Your task to perform on an android device: open wifi settings Image 0: 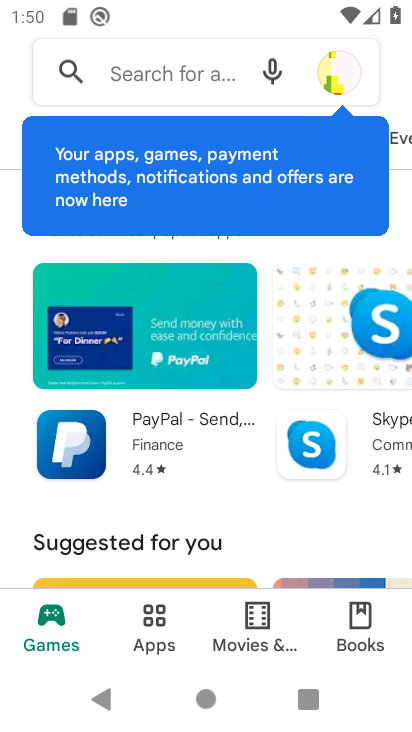
Step 0: press back button
Your task to perform on an android device: open wifi settings Image 1: 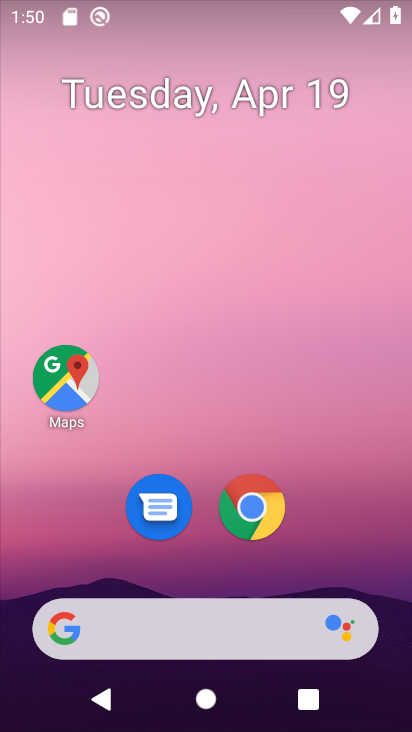
Step 1: drag from (204, 455) to (336, 74)
Your task to perform on an android device: open wifi settings Image 2: 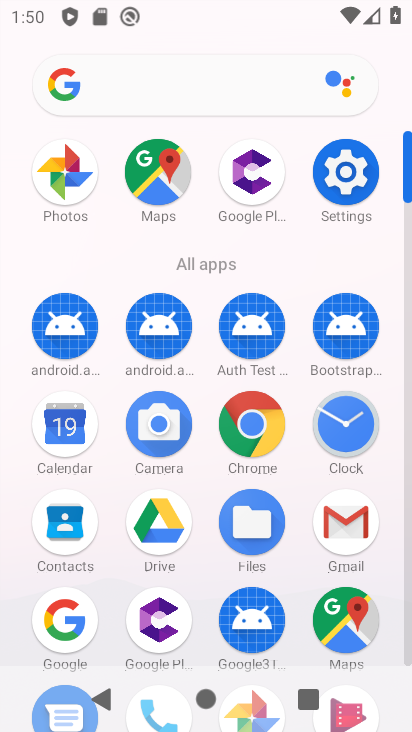
Step 2: click (344, 162)
Your task to perform on an android device: open wifi settings Image 3: 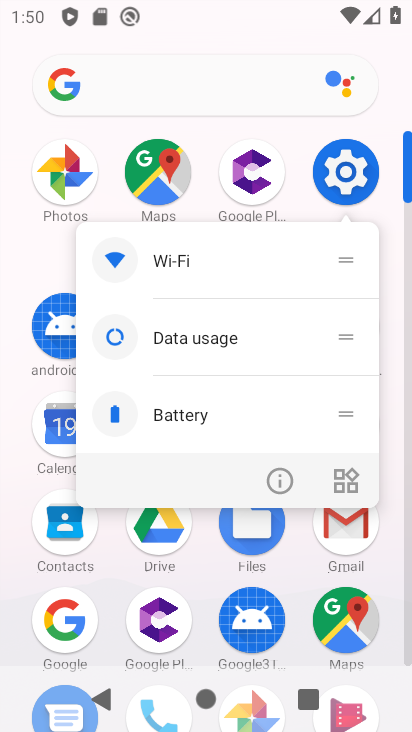
Step 3: click (334, 187)
Your task to perform on an android device: open wifi settings Image 4: 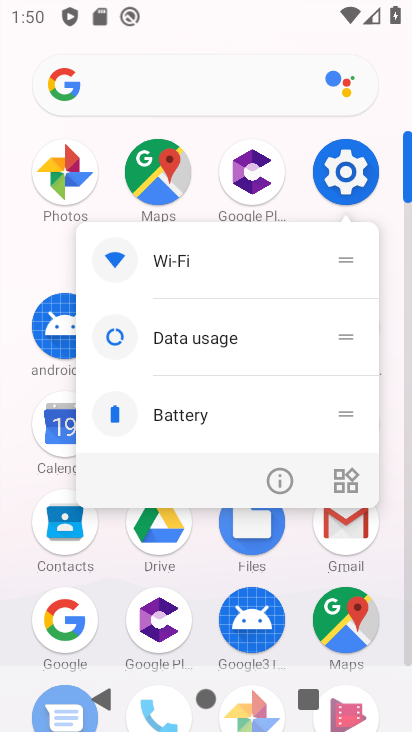
Step 4: click (344, 184)
Your task to perform on an android device: open wifi settings Image 5: 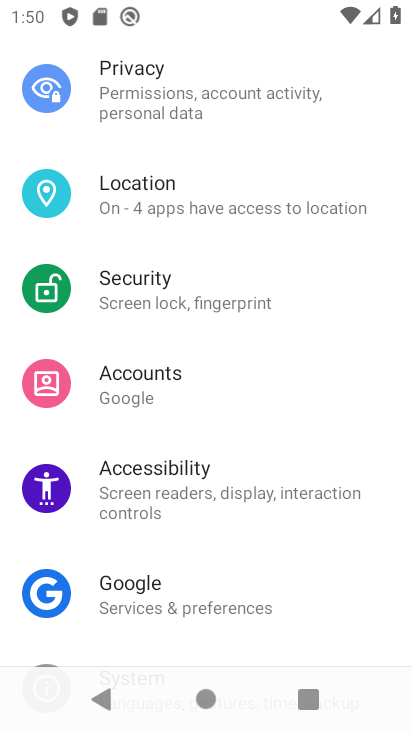
Step 5: drag from (275, 173) to (180, 544)
Your task to perform on an android device: open wifi settings Image 6: 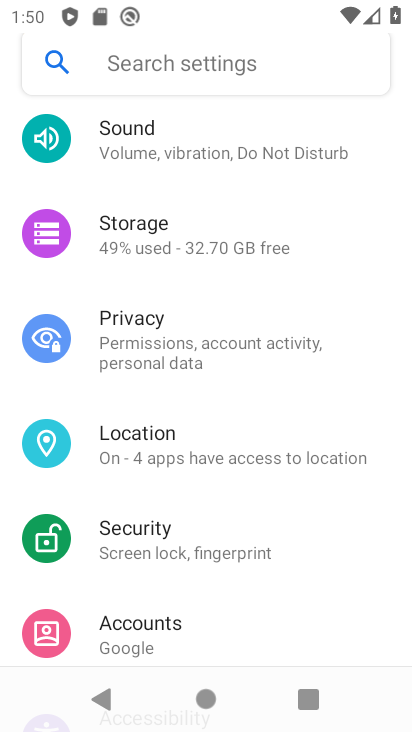
Step 6: drag from (231, 265) to (145, 575)
Your task to perform on an android device: open wifi settings Image 7: 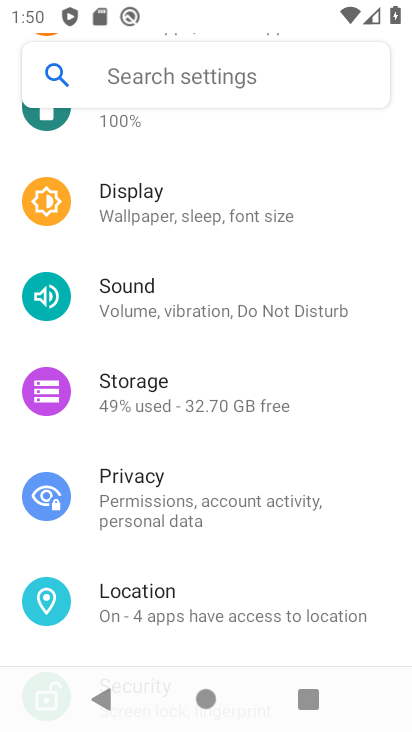
Step 7: drag from (200, 340) to (147, 519)
Your task to perform on an android device: open wifi settings Image 8: 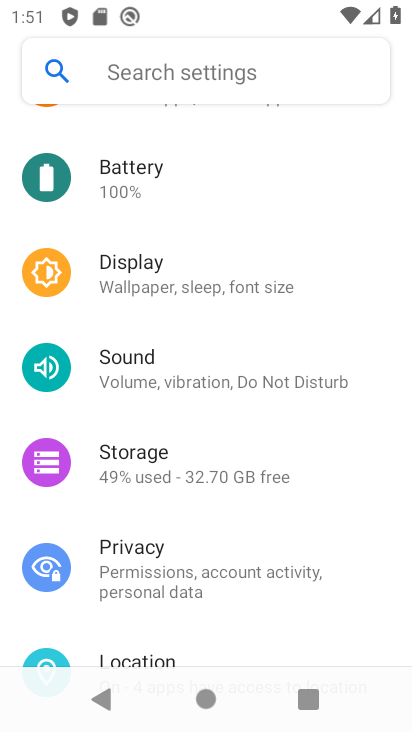
Step 8: drag from (234, 180) to (143, 541)
Your task to perform on an android device: open wifi settings Image 9: 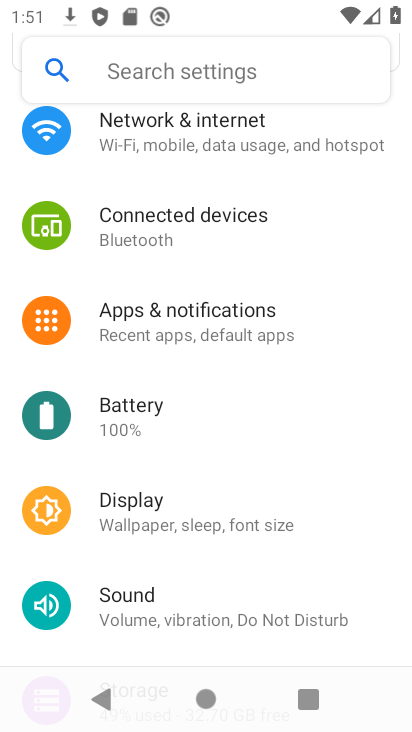
Step 9: click (205, 141)
Your task to perform on an android device: open wifi settings Image 10: 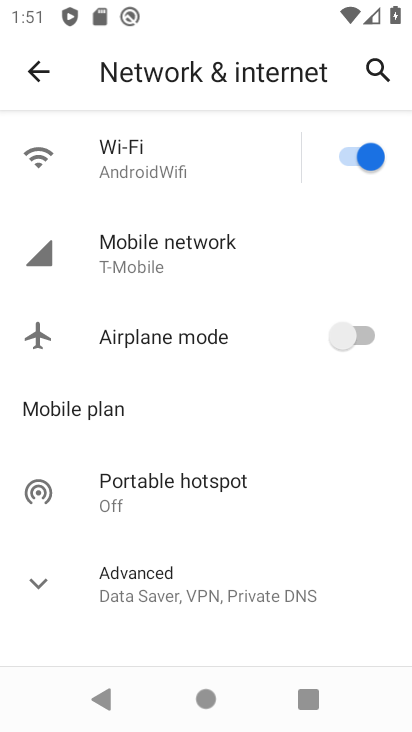
Step 10: task complete